Your task to perform on an android device: Open accessibility settings Image 0: 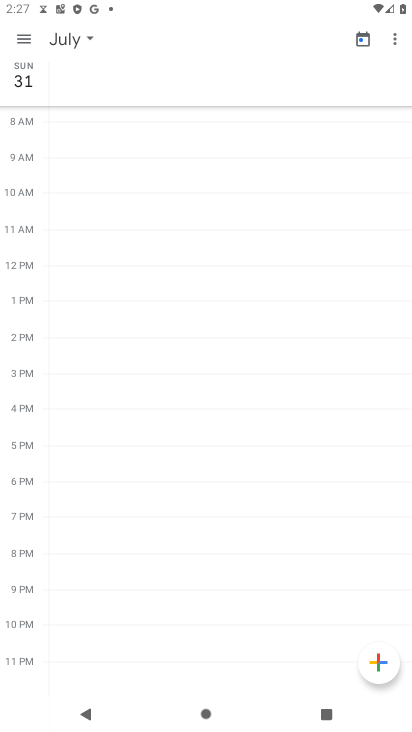
Step 0: press home button
Your task to perform on an android device: Open accessibility settings Image 1: 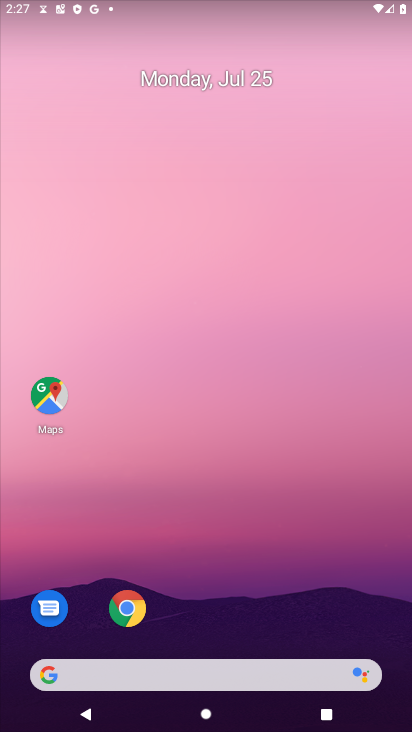
Step 1: drag from (178, 680) to (286, 156)
Your task to perform on an android device: Open accessibility settings Image 2: 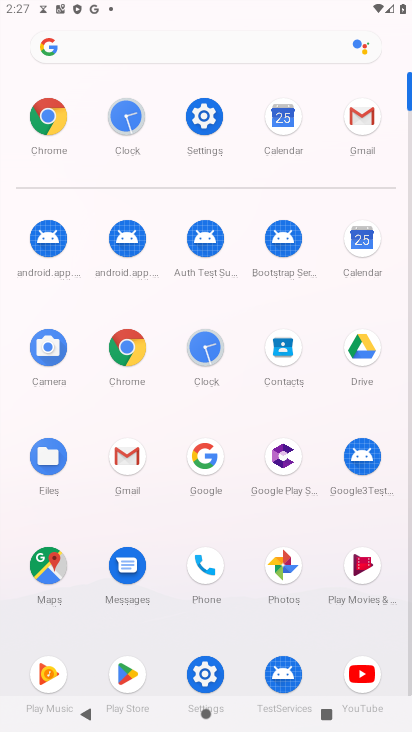
Step 2: click (204, 118)
Your task to perform on an android device: Open accessibility settings Image 3: 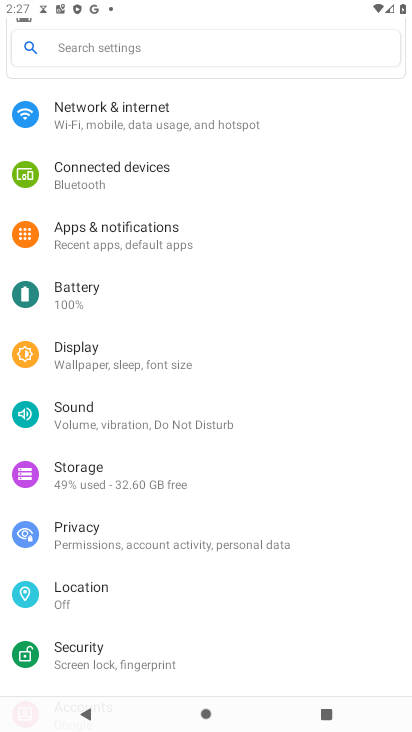
Step 3: drag from (114, 509) to (158, 297)
Your task to perform on an android device: Open accessibility settings Image 4: 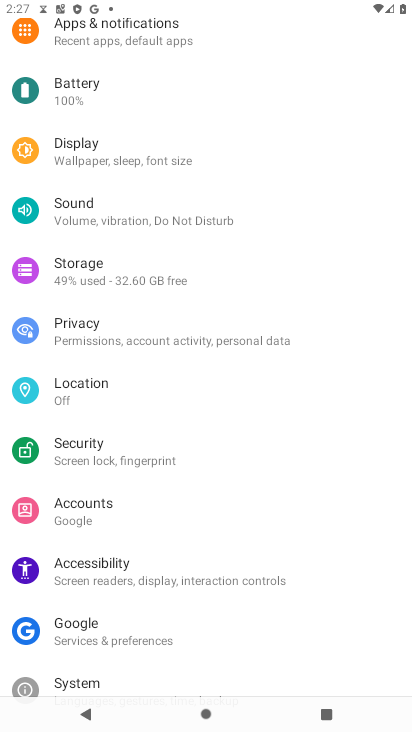
Step 4: click (104, 575)
Your task to perform on an android device: Open accessibility settings Image 5: 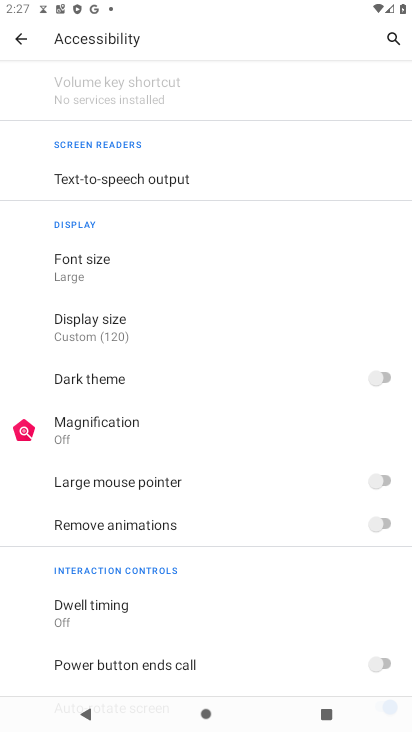
Step 5: task complete